Your task to perform on an android device: turn on notifications settings in the gmail app Image 0: 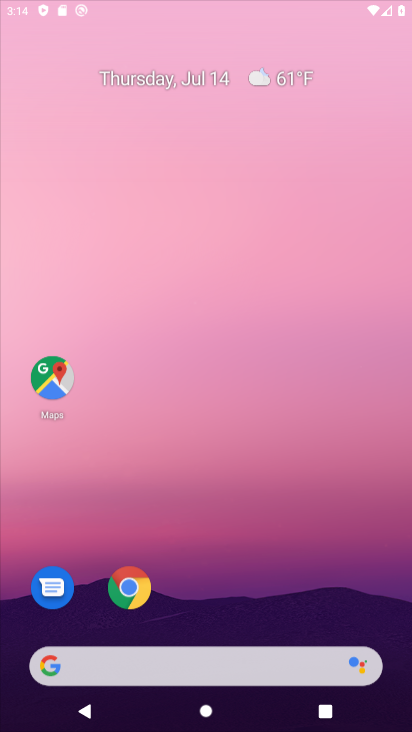
Step 0: press home button
Your task to perform on an android device: turn on notifications settings in the gmail app Image 1: 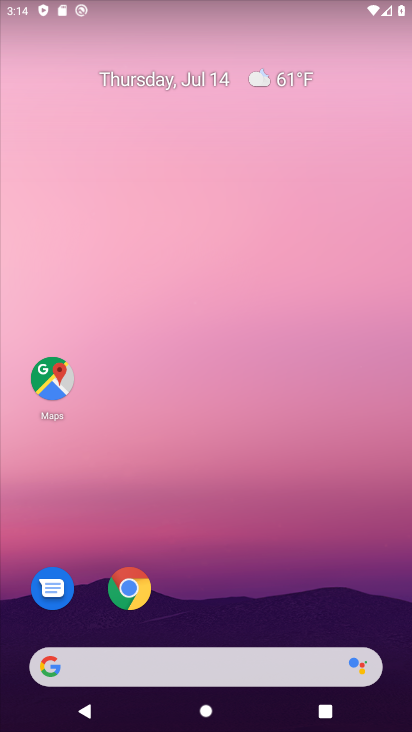
Step 1: drag from (197, 617) to (274, 67)
Your task to perform on an android device: turn on notifications settings in the gmail app Image 2: 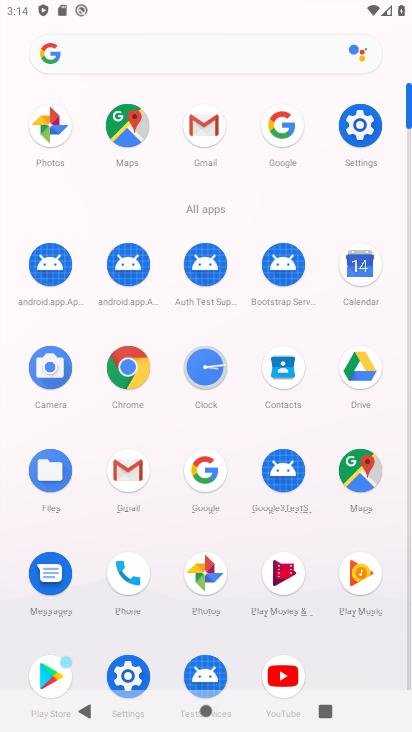
Step 2: click (197, 123)
Your task to perform on an android device: turn on notifications settings in the gmail app Image 3: 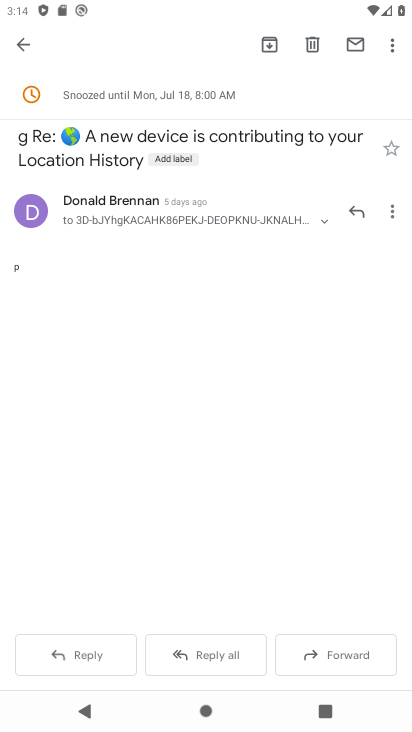
Step 3: click (25, 44)
Your task to perform on an android device: turn on notifications settings in the gmail app Image 4: 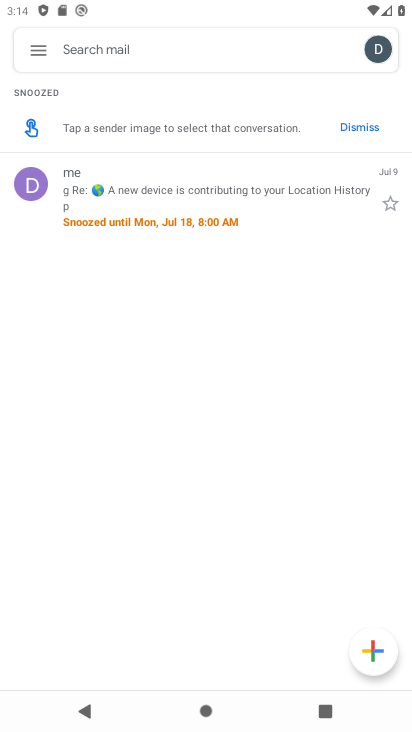
Step 4: click (24, 43)
Your task to perform on an android device: turn on notifications settings in the gmail app Image 5: 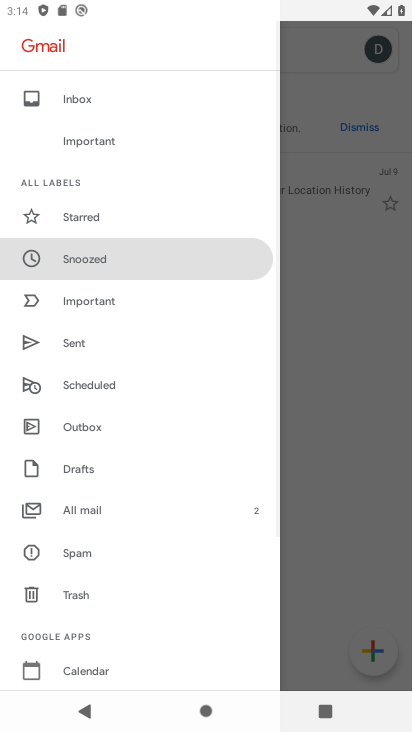
Step 5: drag from (174, 615) to (195, 215)
Your task to perform on an android device: turn on notifications settings in the gmail app Image 6: 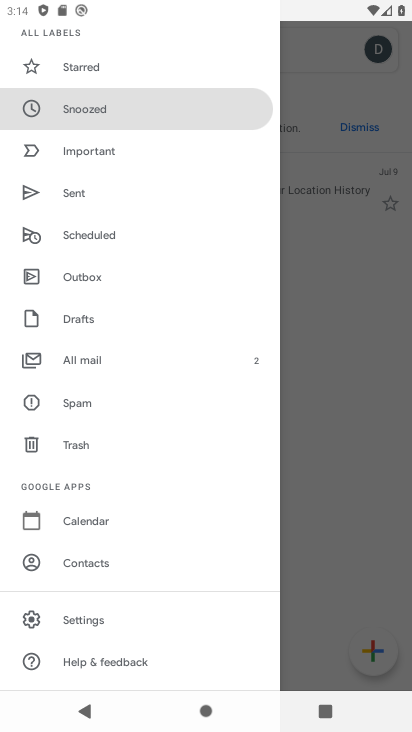
Step 6: click (70, 623)
Your task to perform on an android device: turn on notifications settings in the gmail app Image 7: 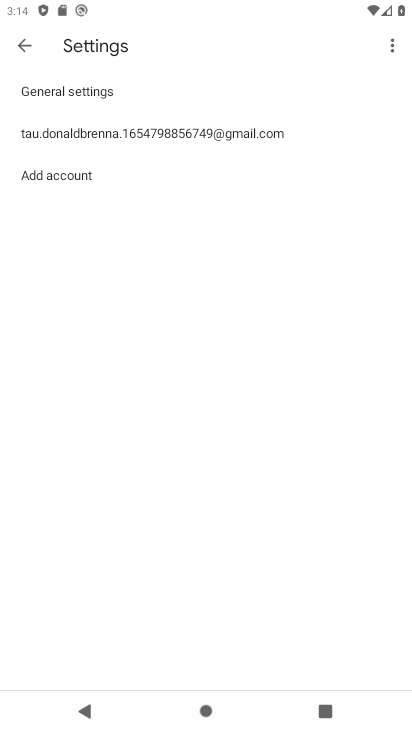
Step 7: click (112, 132)
Your task to perform on an android device: turn on notifications settings in the gmail app Image 8: 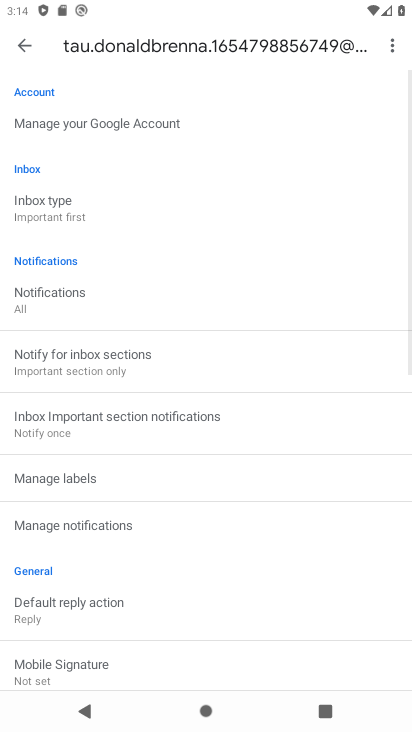
Step 8: click (88, 525)
Your task to perform on an android device: turn on notifications settings in the gmail app Image 9: 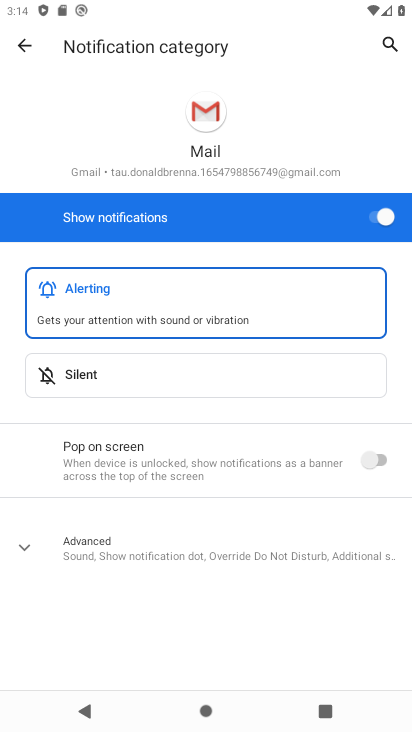
Step 9: task complete